Your task to perform on an android device: turn off location Image 0: 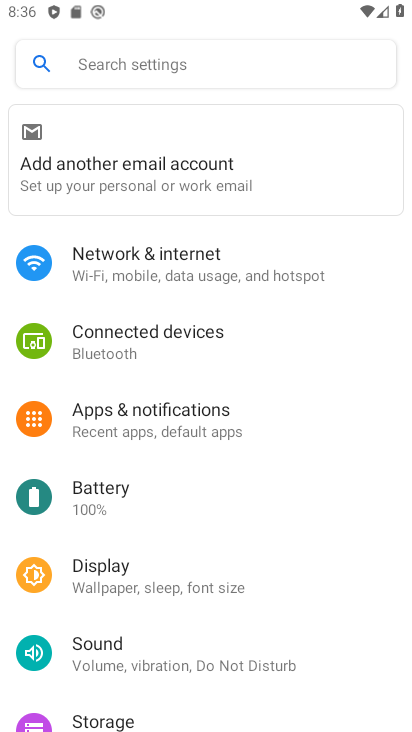
Step 0: press home button
Your task to perform on an android device: turn off location Image 1: 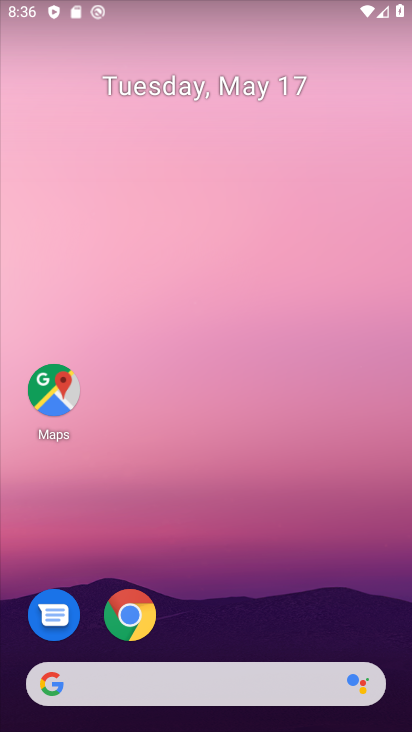
Step 1: drag from (335, 624) to (340, 327)
Your task to perform on an android device: turn off location Image 2: 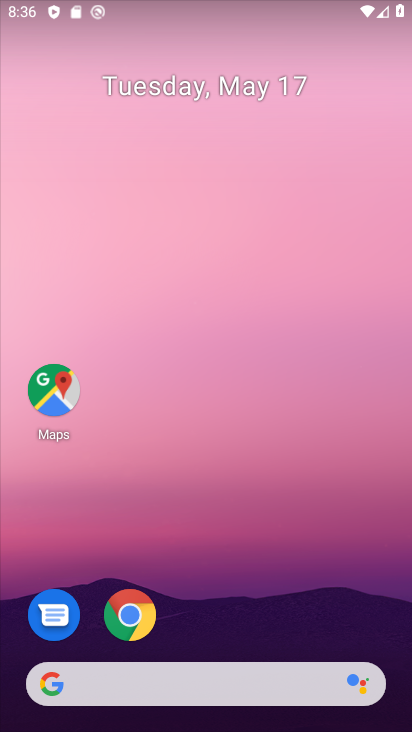
Step 2: drag from (292, 630) to (294, 25)
Your task to perform on an android device: turn off location Image 3: 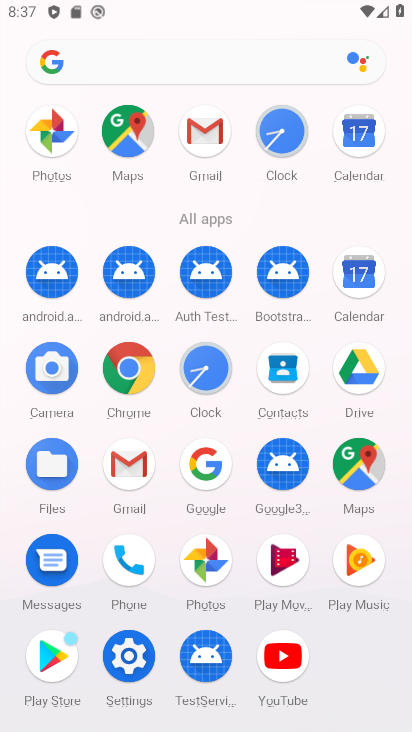
Step 3: click (134, 650)
Your task to perform on an android device: turn off location Image 4: 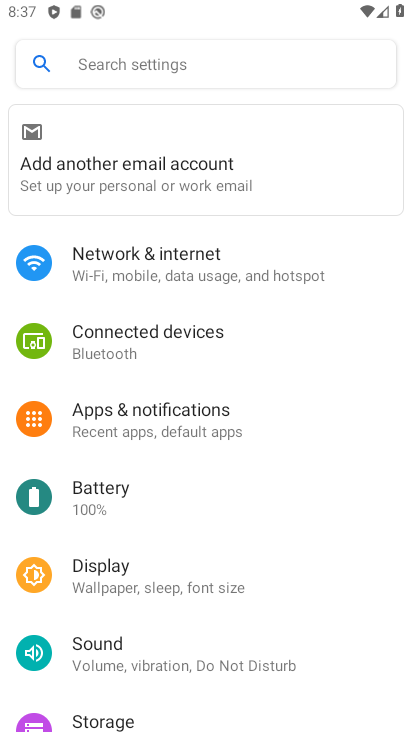
Step 4: drag from (167, 624) to (183, 295)
Your task to perform on an android device: turn off location Image 5: 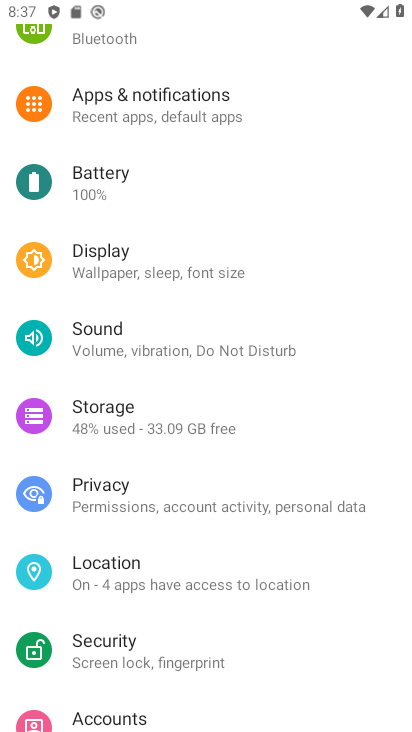
Step 5: click (165, 575)
Your task to perform on an android device: turn off location Image 6: 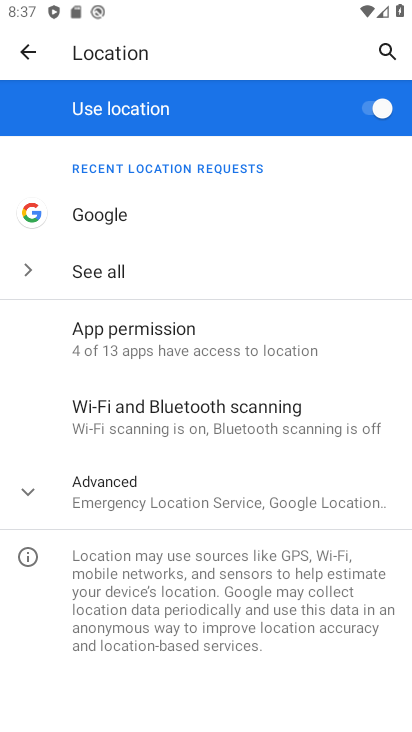
Step 6: click (383, 107)
Your task to perform on an android device: turn off location Image 7: 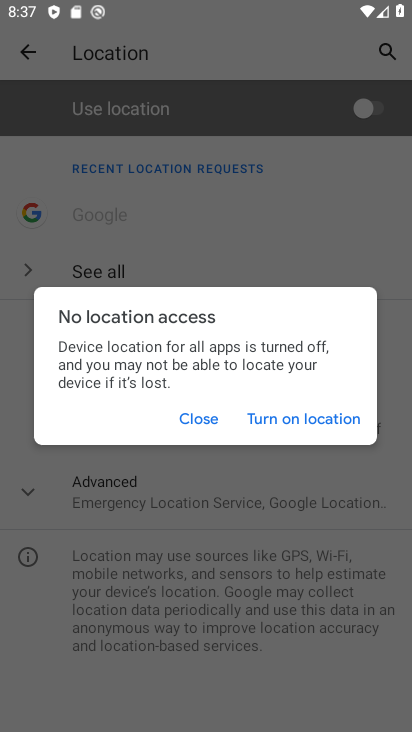
Step 7: click (204, 416)
Your task to perform on an android device: turn off location Image 8: 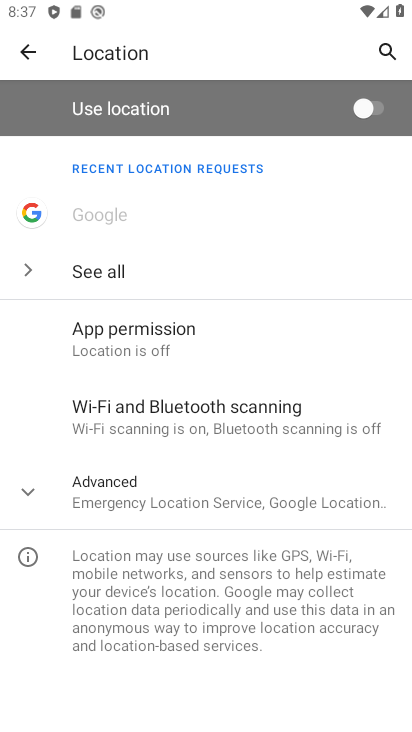
Step 8: task complete